Your task to perform on an android device: open app "Move to iOS" (install if not already installed) Image 0: 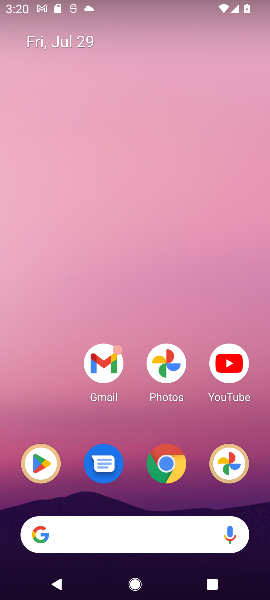
Step 0: drag from (90, 532) to (122, 80)
Your task to perform on an android device: open app "Move to iOS" (install if not already installed) Image 1: 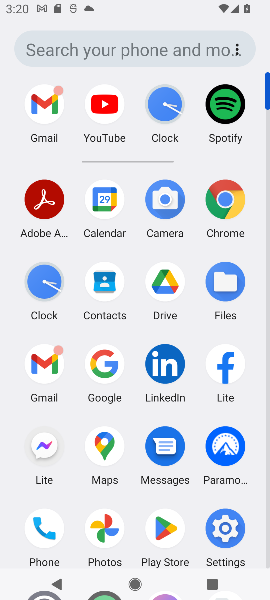
Step 1: click (169, 529)
Your task to perform on an android device: open app "Move to iOS" (install if not already installed) Image 2: 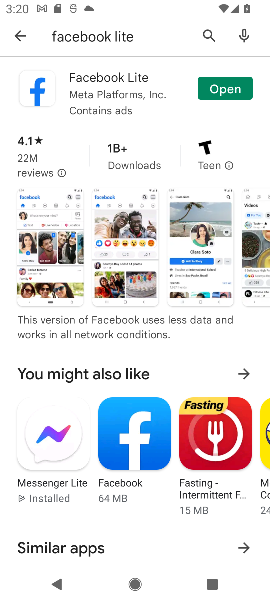
Step 2: click (206, 39)
Your task to perform on an android device: open app "Move to iOS" (install if not already installed) Image 3: 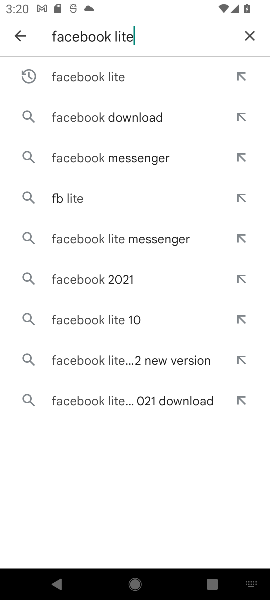
Step 3: click (252, 37)
Your task to perform on an android device: open app "Move to iOS" (install if not already installed) Image 4: 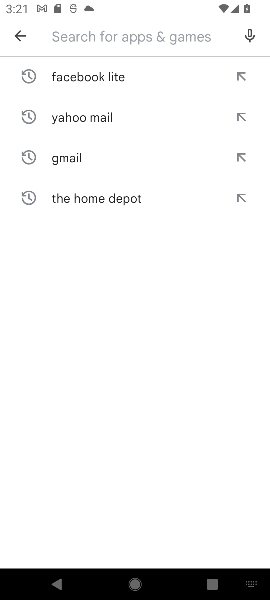
Step 4: click (110, 29)
Your task to perform on an android device: open app "Move to iOS" (install if not already installed) Image 5: 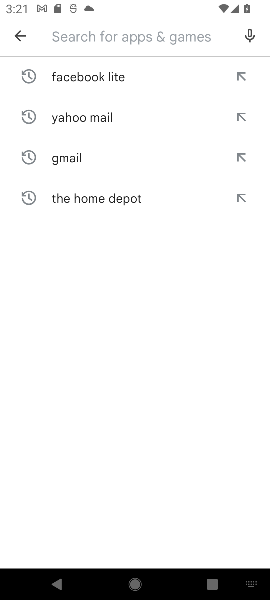
Step 5: type "Move to iOS"
Your task to perform on an android device: open app "Move to iOS" (install if not already installed) Image 6: 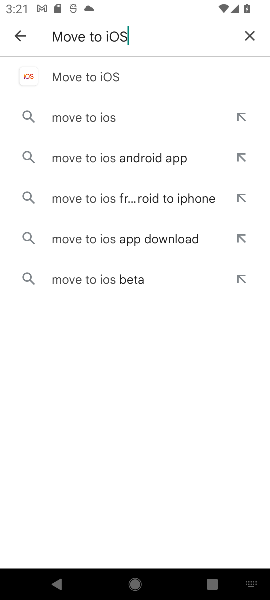
Step 6: click (108, 83)
Your task to perform on an android device: open app "Move to iOS" (install if not already installed) Image 7: 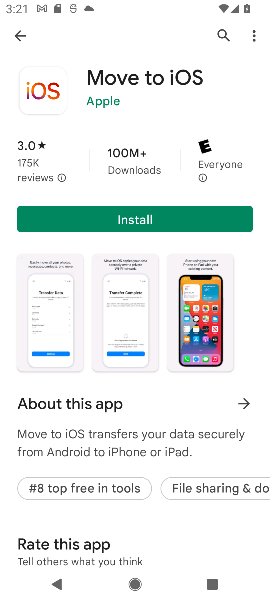
Step 7: click (144, 215)
Your task to perform on an android device: open app "Move to iOS" (install if not already installed) Image 8: 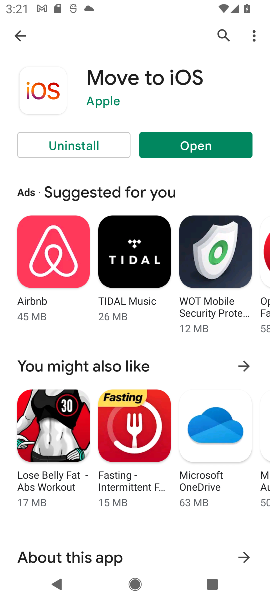
Step 8: click (216, 143)
Your task to perform on an android device: open app "Move to iOS" (install if not already installed) Image 9: 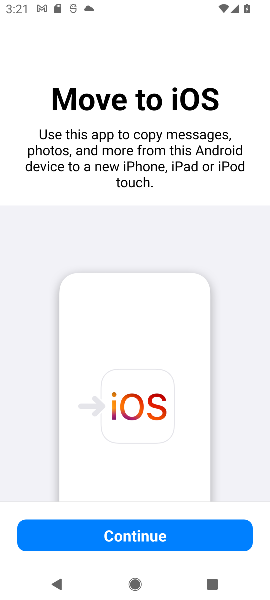
Step 9: task complete